Your task to perform on an android device: stop showing notifications on the lock screen Image 0: 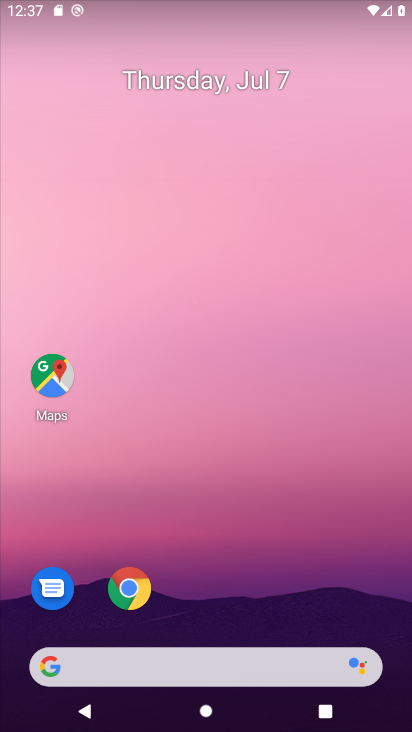
Step 0: drag from (245, 602) to (355, 133)
Your task to perform on an android device: stop showing notifications on the lock screen Image 1: 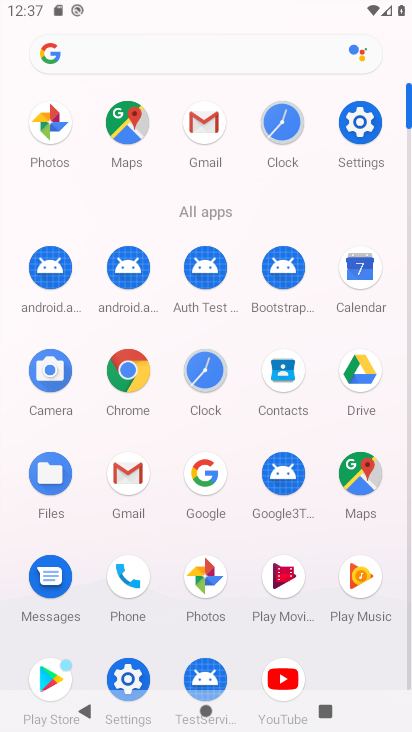
Step 1: click (121, 671)
Your task to perform on an android device: stop showing notifications on the lock screen Image 2: 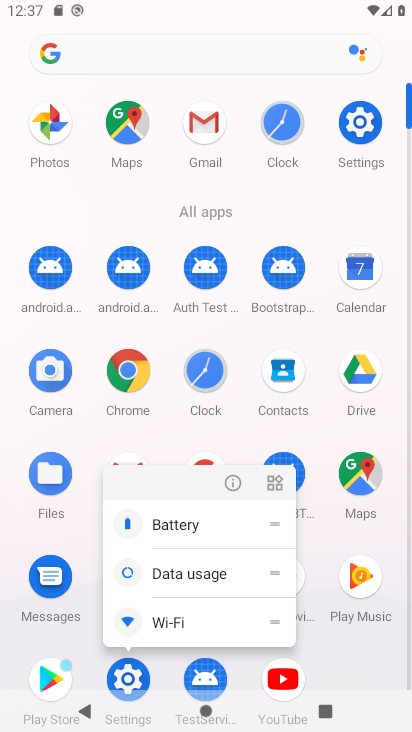
Step 2: click (237, 478)
Your task to perform on an android device: stop showing notifications on the lock screen Image 3: 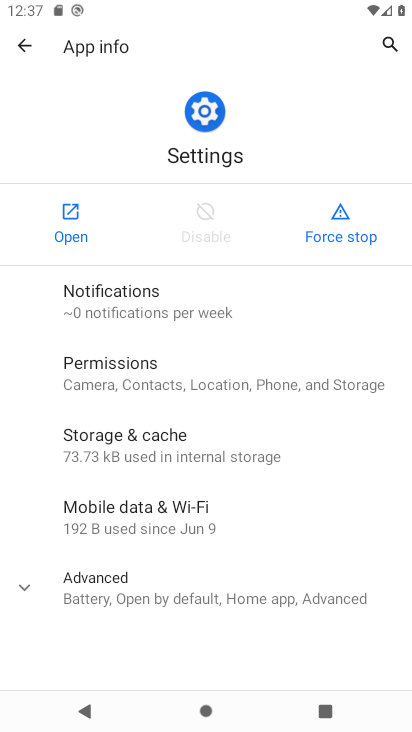
Step 3: click (78, 201)
Your task to perform on an android device: stop showing notifications on the lock screen Image 4: 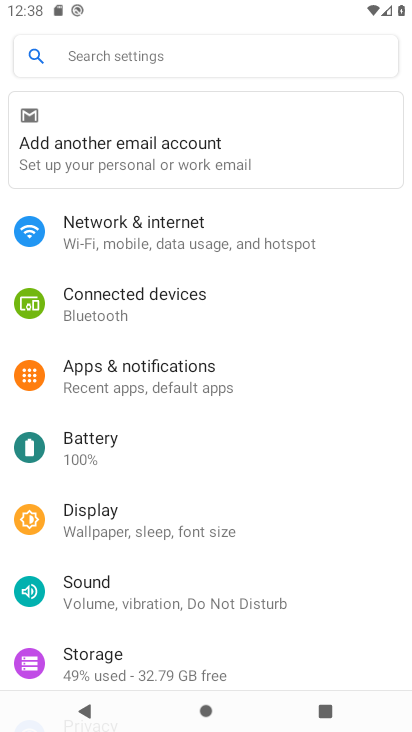
Step 4: click (131, 366)
Your task to perform on an android device: stop showing notifications on the lock screen Image 5: 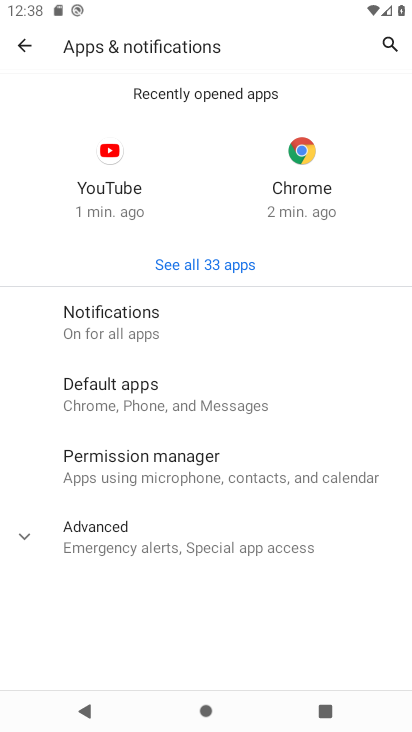
Step 5: click (195, 326)
Your task to perform on an android device: stop showing notifications on the lock screen Image 6: 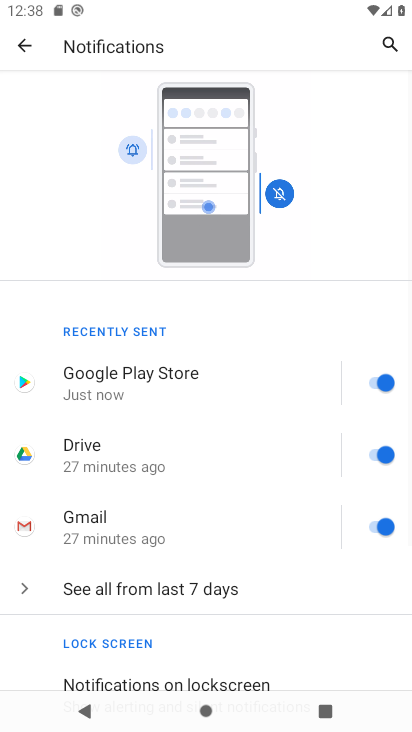
Step 6: drag from (172, 632) to (377, 32)
Your task to perform on an android device: stop showing notifications on the lock screen Image 7: 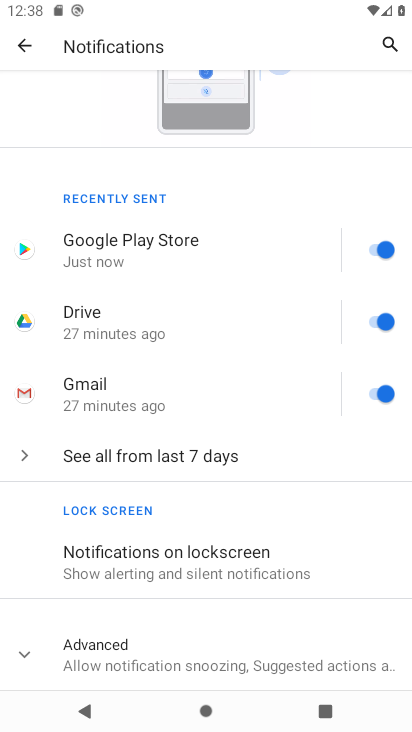
Step 7: drag from (214, 598) to (314, 287)
Your task to perform on an android device: stop showing notifications on the lock screen Image 8: 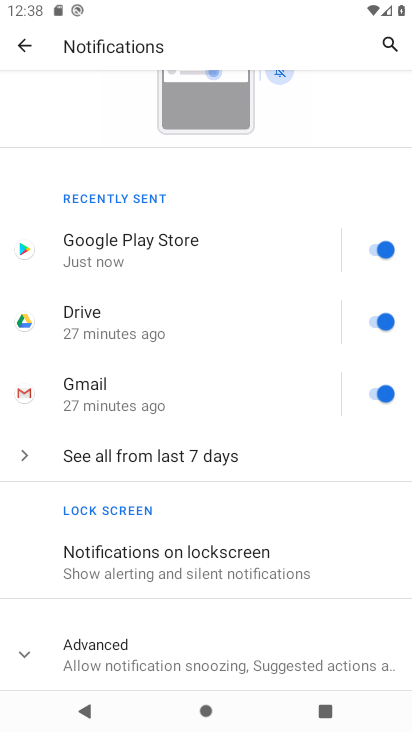
Step 8: click (190, 566)
Your task to perform on an android device: stop showing notifications on the lock screen Image 9: 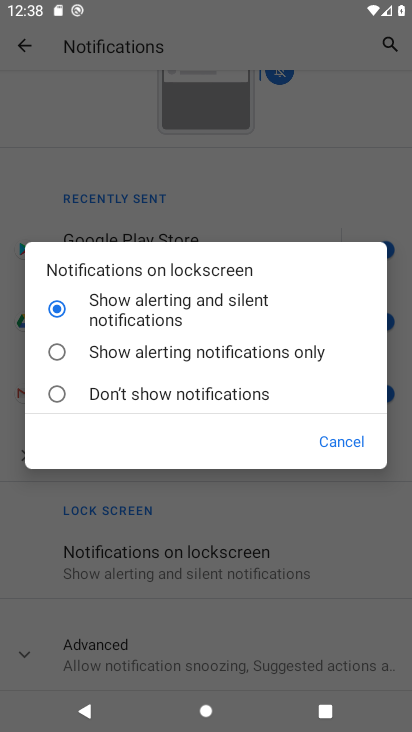
Step 9: click (79, 354)
Your task to perform on an android device: stop showing notifications on the lock screen Image 10: 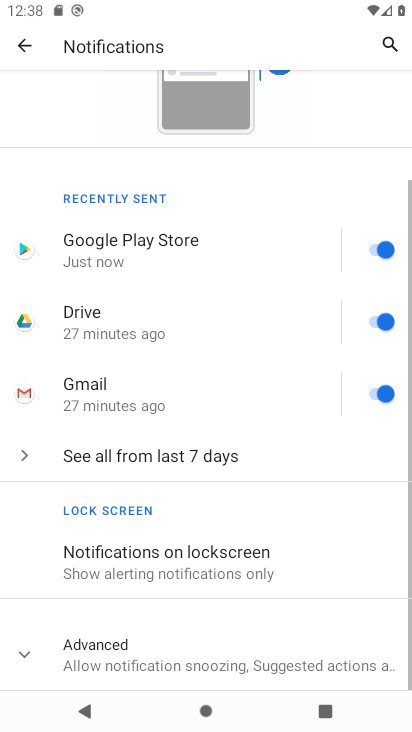
Step 10: task complete